Your task to perform on an android device: Go to battery settings Image 0: 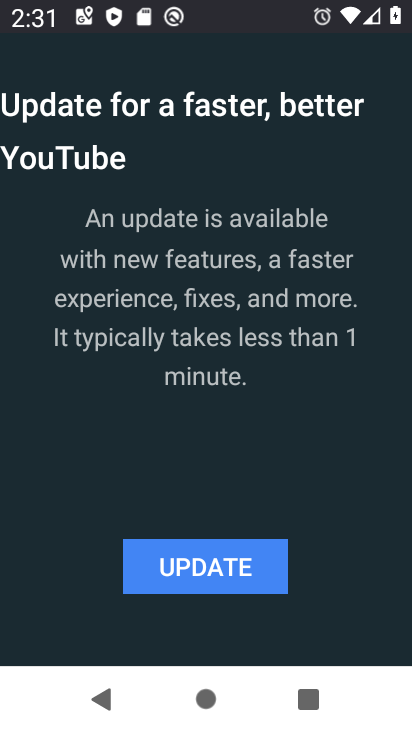
Step 0: press home button
Your task to perform on an android device: Go to battery settings Image 1: 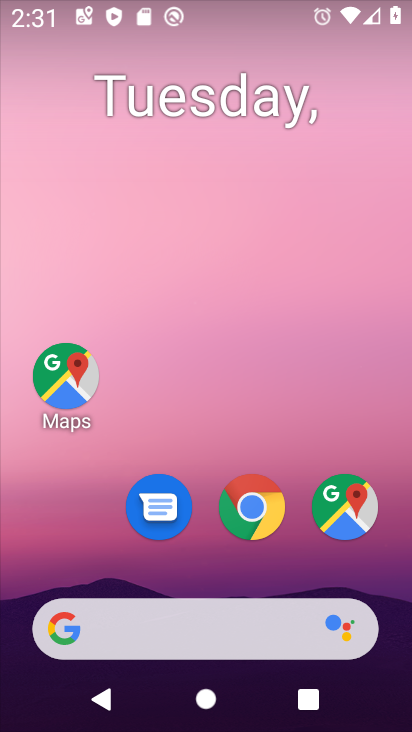
Step 1: drag from (183, 590) to (226, 221)
Your task to perform on an android device: Go to battery settings Image 2: 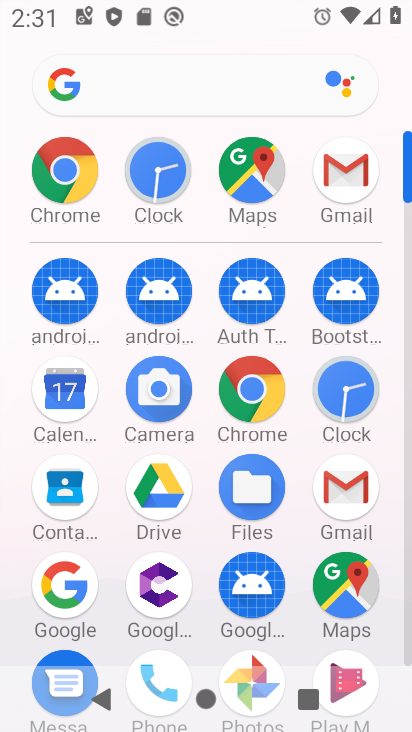
Step 2: drag from (177, 555) to (210, 390)
Your task to perform on an android device: Go to battery settings Image 3: 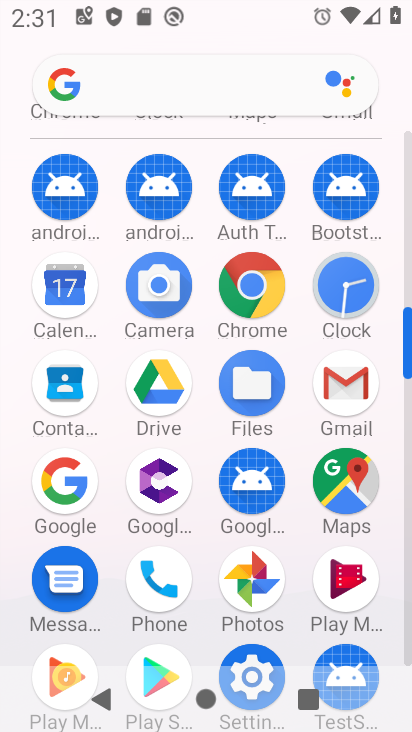
Step 3: drag from (235, 597) to (283, 391)
Your task to perform on an android device: Go to battery settings Image 4: 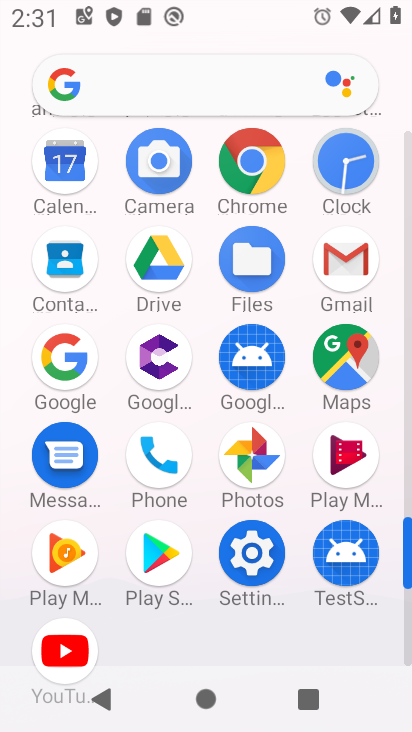
Step 4: click (247, 566)
Your task to perform on an android device: Go to battery settings Image 5: 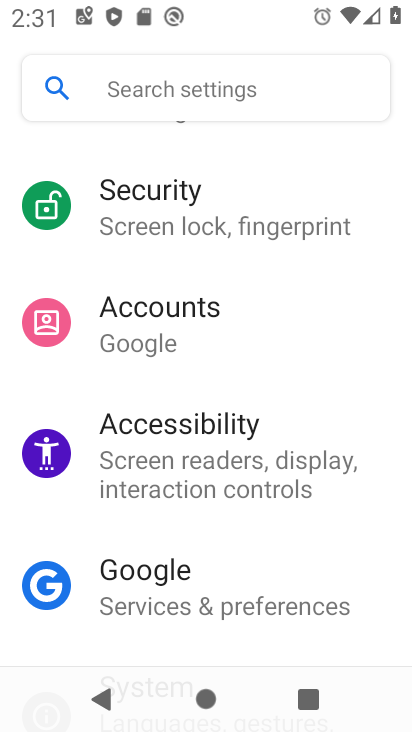
Step 5: drag from (241, 453) to (304, 161)
Your task to perform on an android device: Go to battery settings Image 6: 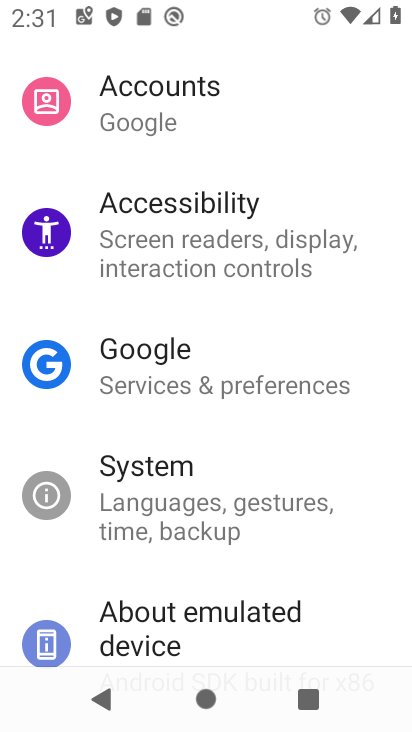
Step 6: drag from (250, 133) to (196, 536)
Your task to perform on an android device: Go to battery settings Image 7: 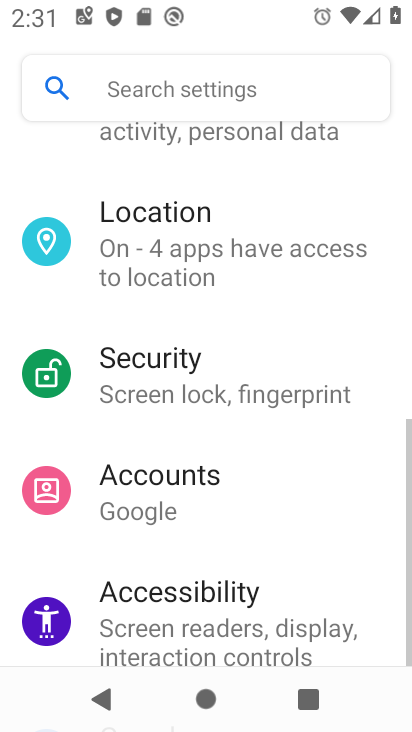
Step 7: drag from (222, 199) to (162, 569)
Your task to perform on an android device: Go to battery settings Image 8: 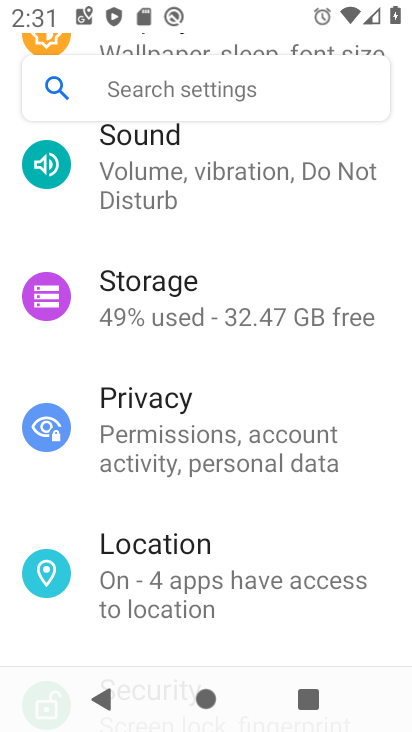
Step 8: drag from (167, 158) to (170, 526)
Your task to perform on an android device: Go to battery settings Image 9: 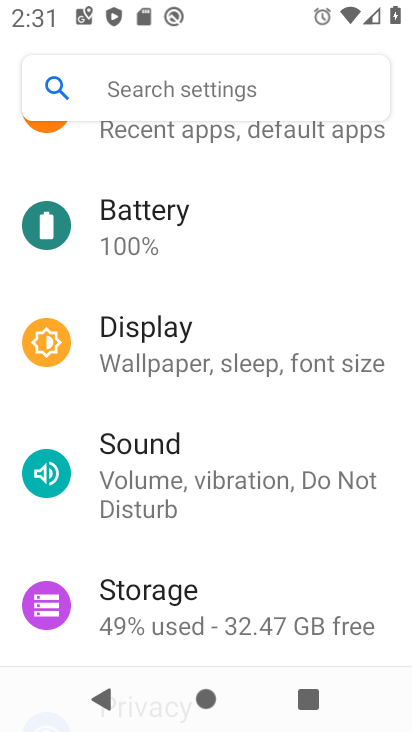
Step 9: click (173, 215)
Your task to perform on an android device: Go to battery settings Image 10: 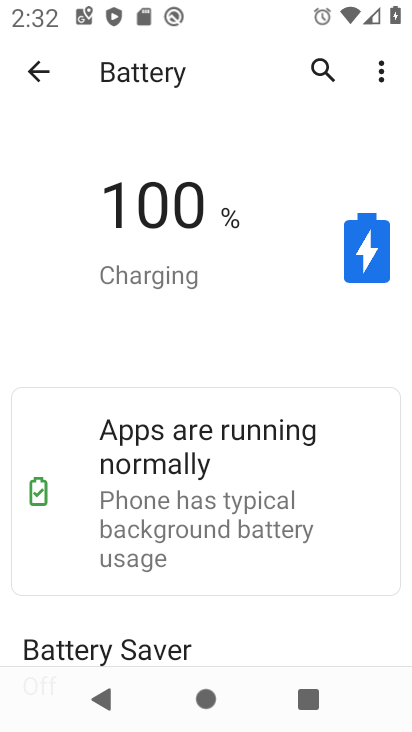
Step 10: task complete